Your task to perform on an android device: toggle show notifications on the lock screen Image 0: 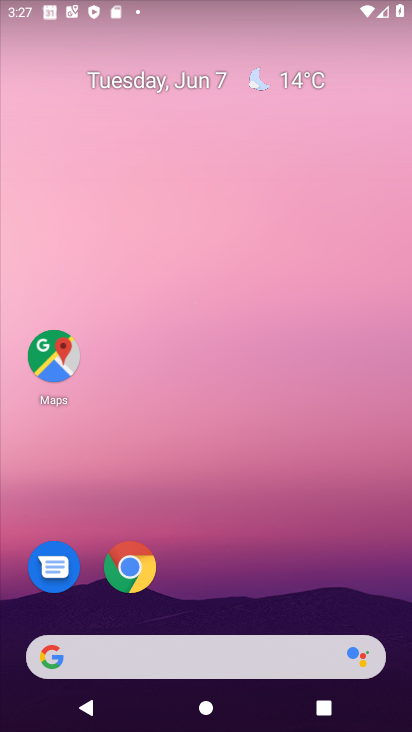
Step 0: drag from (229, 586) to (196, 94)
Your task to perform on an android device: toggle show notifications on the lock screen Image 1: 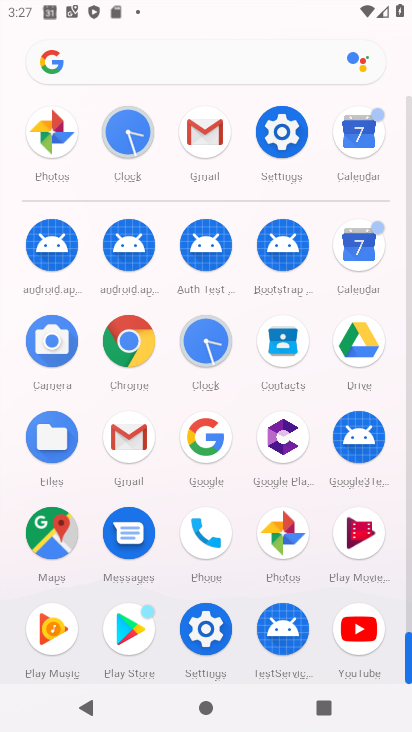
Step 1: click (281, 126)
Your task to perform on an android device: toggle show notifications on the lock screen Image 2: 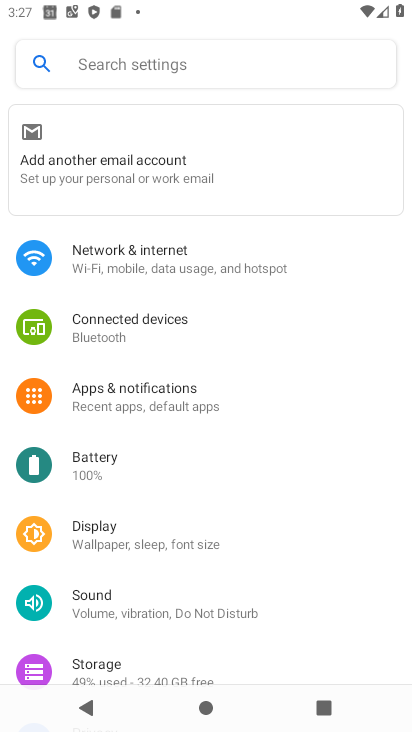
Step 2: click (189, 408)
Your task to perform on an android device: toggle show notifications on the lock screen Image 3: 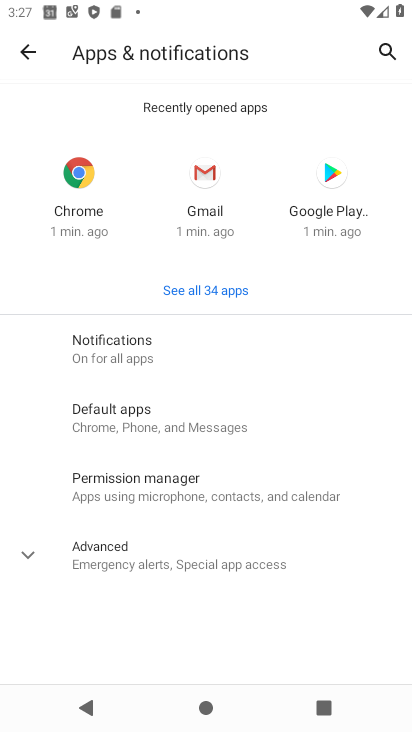
Step 3: click (163, 346)
Your task to perform on an android device: toggle show notifications on the lock screen Image 4: 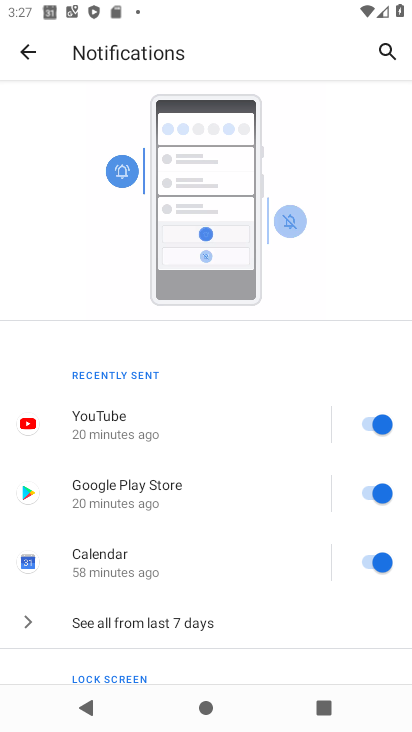
Step 4: drag from (201, 682) to (202, 346)
Your task to perform on an android device: toggle show notifications on the lock screen Image 5: 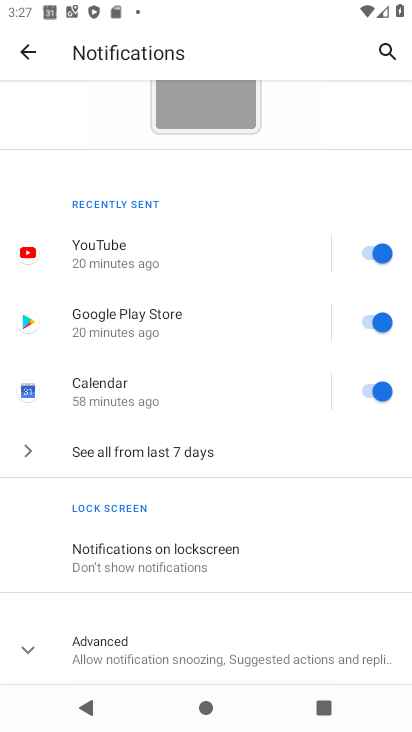
Step 5: click (203, 575)
Your task to perform on an android device: toggle show notifications on the lock screen Image 6: 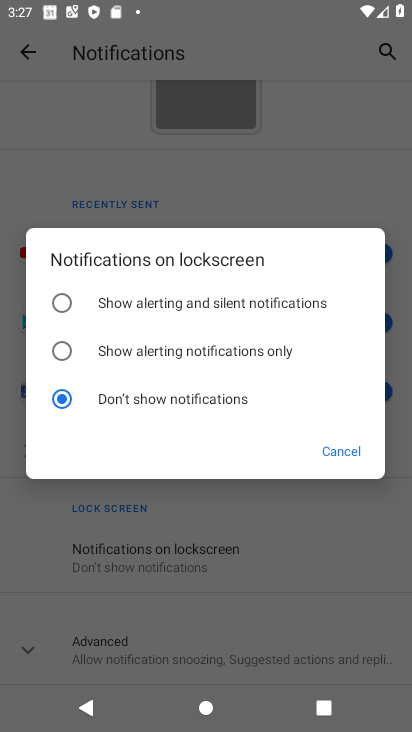
Step 6: click (197, 290)
Your task to perform on an android device: toggle show notifications on the lock screen Image 7: 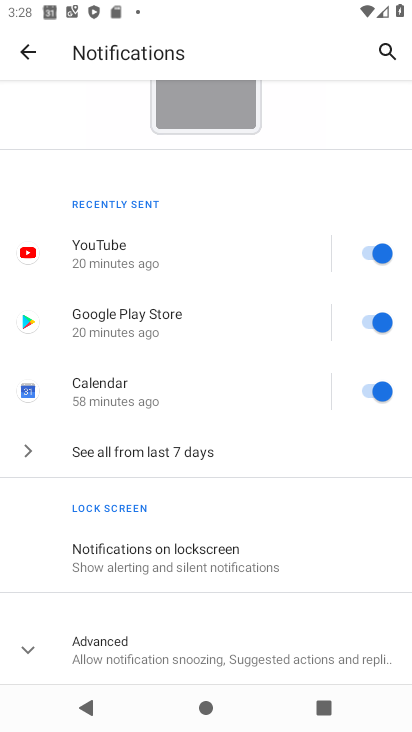
Step 7: task complete